Your task to perform on an android device: Open Google Chrome and open the bookmarks view Image 0: 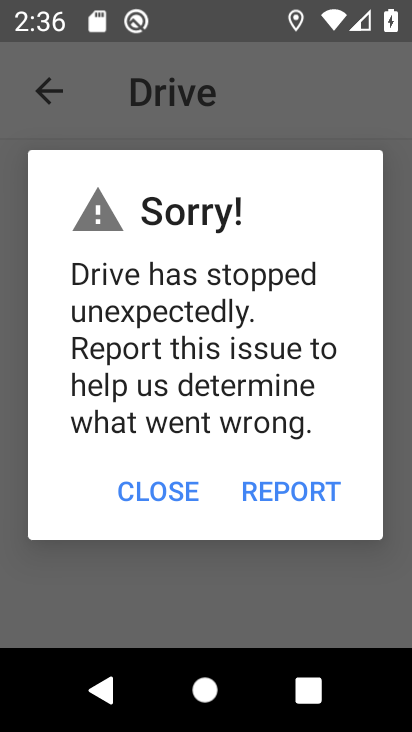
Step 0: press home button
Your task to perform on an android device: Open Google Chrome and open the bookmarks view Image 1: 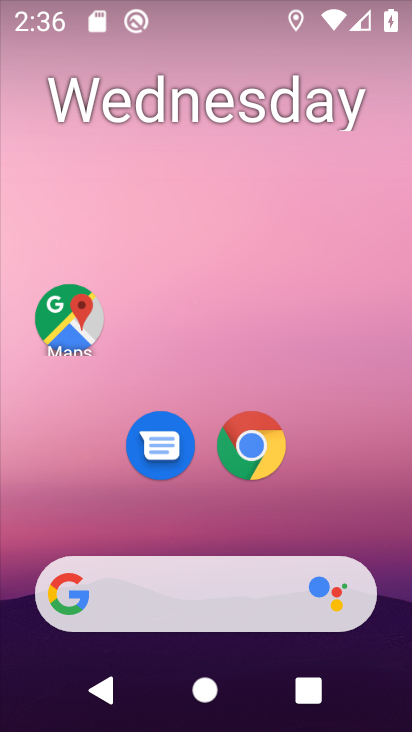
Step 1: click (252, 446)
Your task to perform on an android device: Open Google Chrome and open the bookmarks view Image 2: 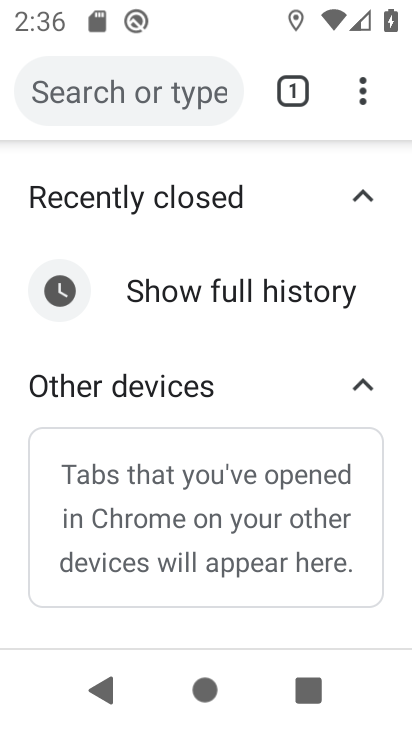
Step 2: click (360, 91)
Your task to perform on an android device: Open Google Chrome and open the bookmarks view Image 3: 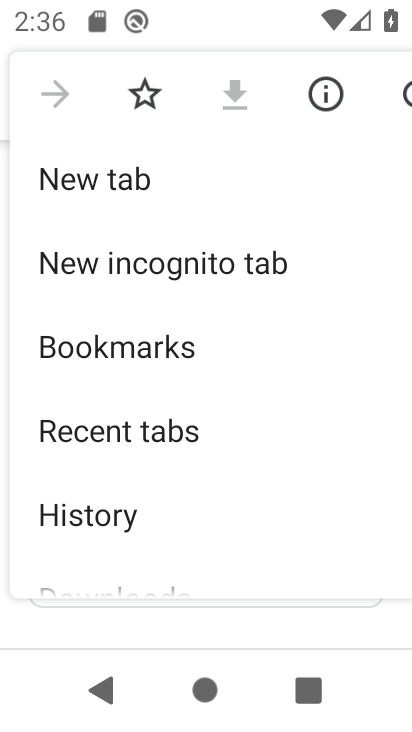
Step 3: click (125, 354)
Your task to perform on an android device: Open Google Chrome and open the bookmarks view Image 4: 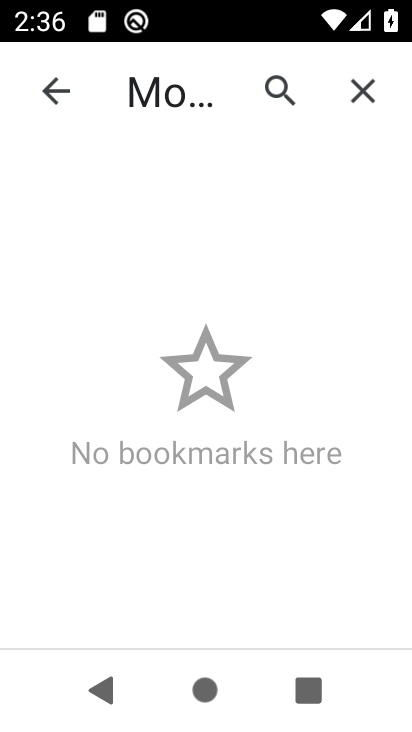
Step 4: task complete